Your task to perform on an android device: toggle javascript in the chrome app Image 0: 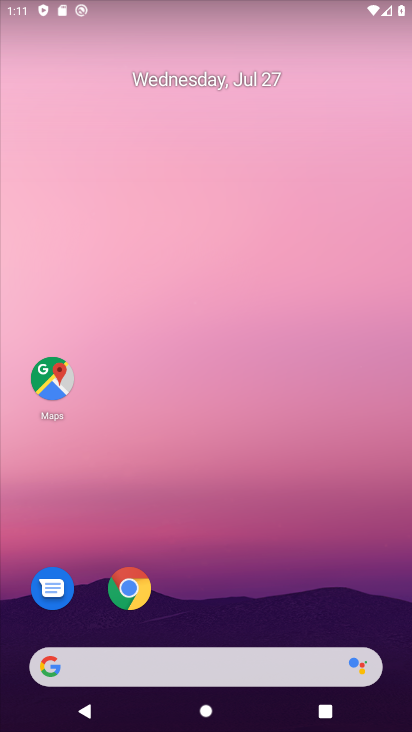
Step 0: click (123, 574)
Your task to perform on an android device: toggle javascript in the chrome app Image 1: 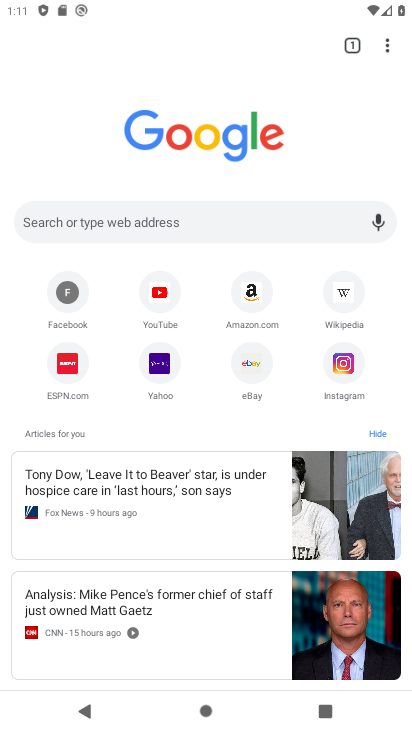
Step 1: click (381, 33)
Your task to perform on an android device: toggle javascript in the chrome app Image 2: 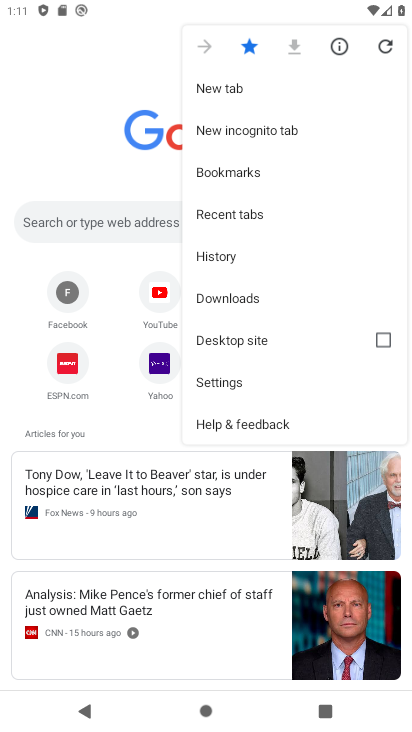
Step 2: click (216, 369)
Your task to perform on an android device: toggle javascript in the chrome app Image 3: 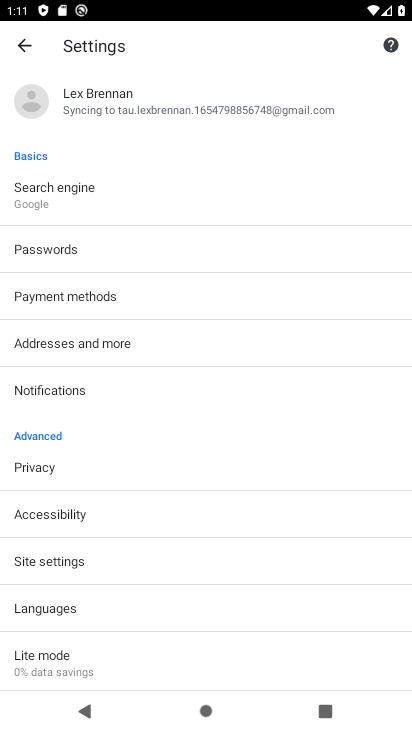
Step 3: click (91, 574)
Your task to perform on an android device: toggle javascript in the chrome app Image 4: 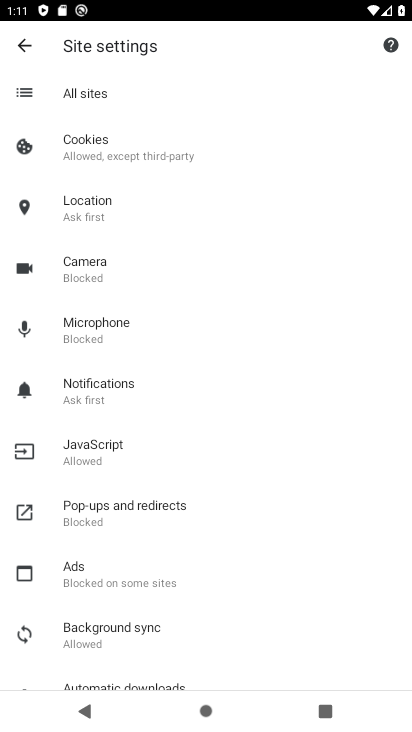
Step 4: click (155, 461)
Your task to perform on an android device: toggle javascript in the chrome app Image 5: 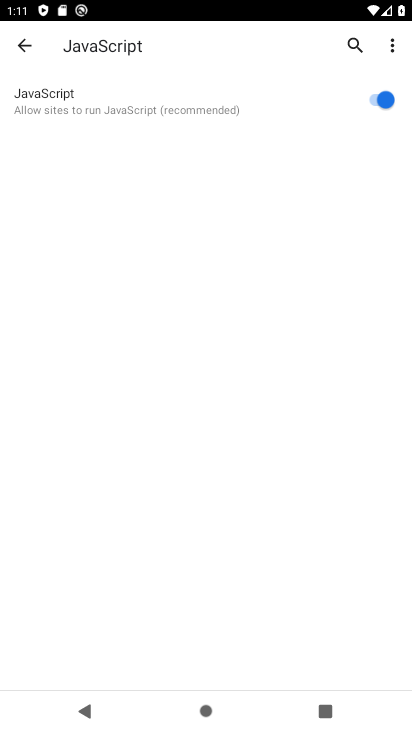
Step 5: click (370, 92)
Your task to perform on an android device: toggle javascript in the chrome app Image 6: 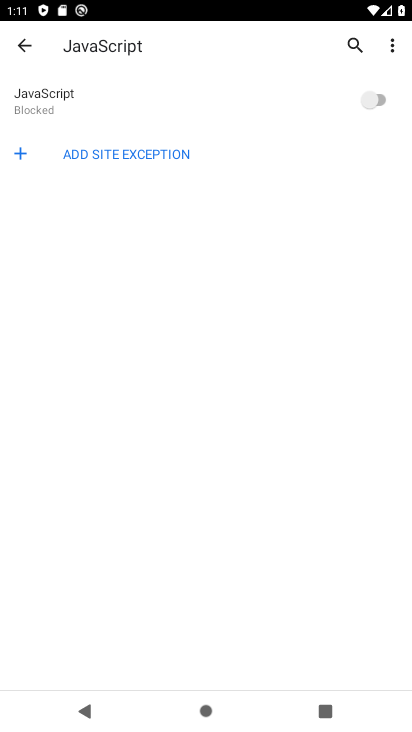
Step 6: task complete